Your task to perform on an android device: toggle airplane mode Image 0: 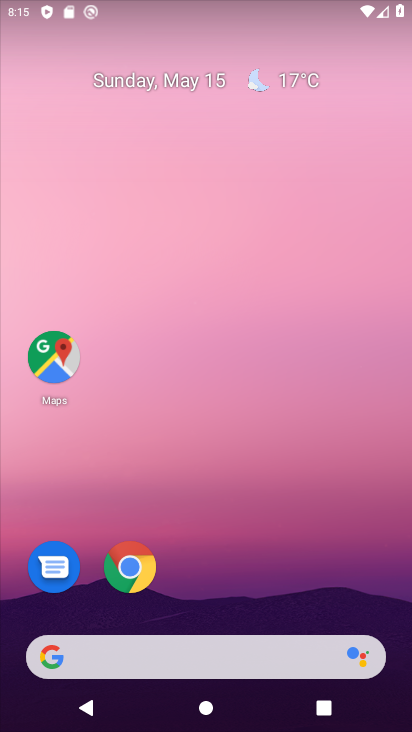
Step 0: drag from (235, 647) to (187, 153)
Your task to perform on an android device: toggle airplane mode Image 1: 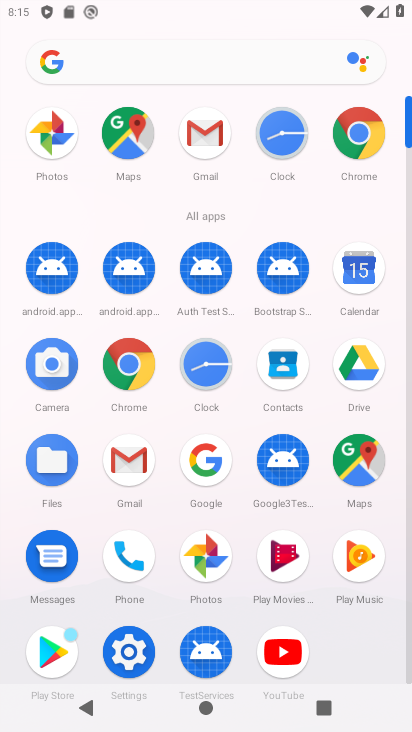
Step 1: click (114, 645)
Your task to perform on an android device: toggle airplane mode Image 2: 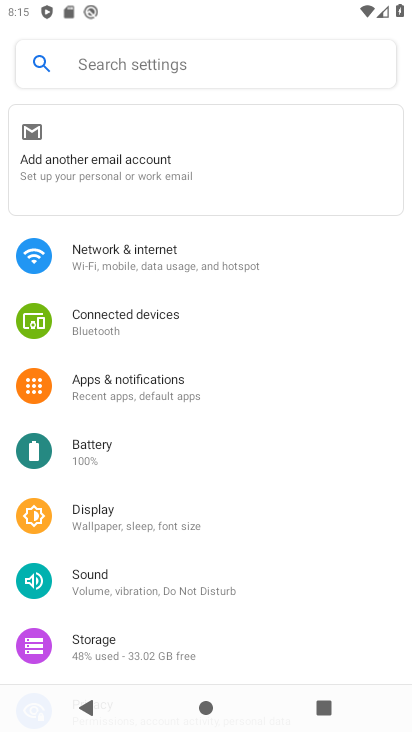
Step 2: click (168, 257)
Your task to perform on an android device: toggle airplane mode Image 3: 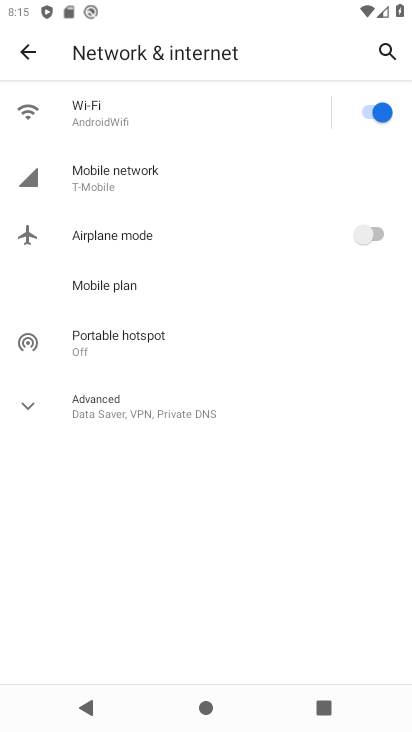
Step 3: click (374, 228)
Your task to perform on an android device: toggle airplane mode Image 4: 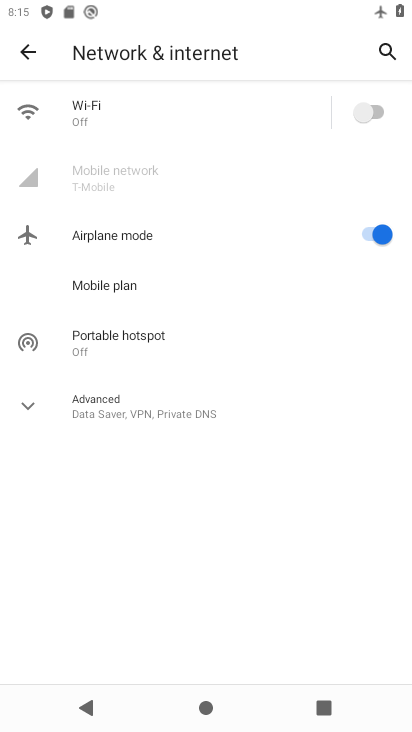
Step 4: task complete